Your task to perform on an android device: Open network settings Image 0: 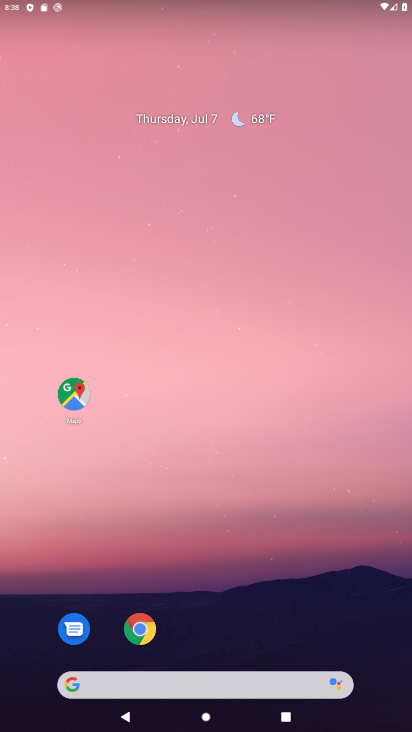
Step 0: drag from (230, 639) to (251, 86)
Your task to perform on an android device: Open network settings Image 1: 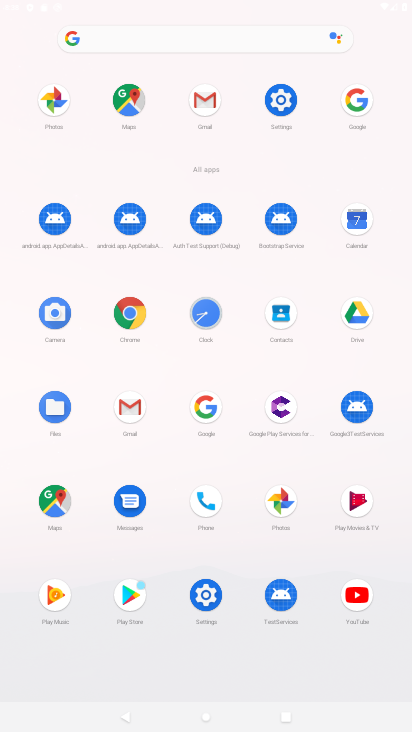
Step 1: click (280, 97)
Your task to perform on an android device: Open network settings Image 2: 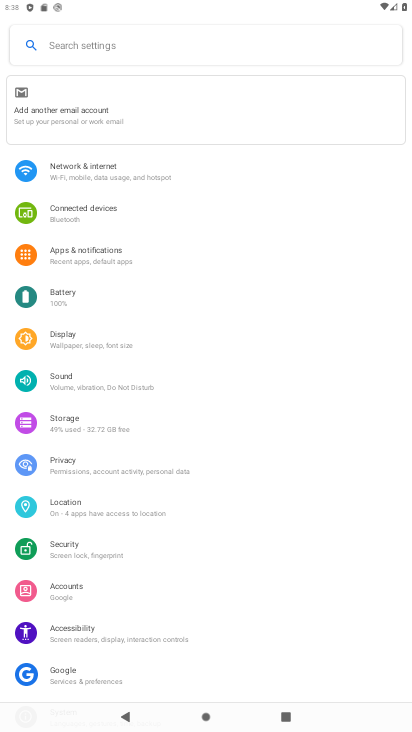
Step 2: drag from (83, 97) to (175, 4)
Your task to perform on an android device: Open network settings Image 3: 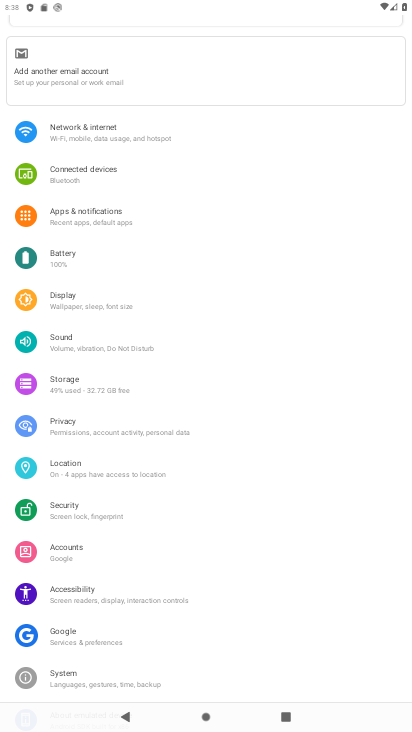
Step 3: click (119, 128)
Your task to perform on an android device: Open network settings Image 4: 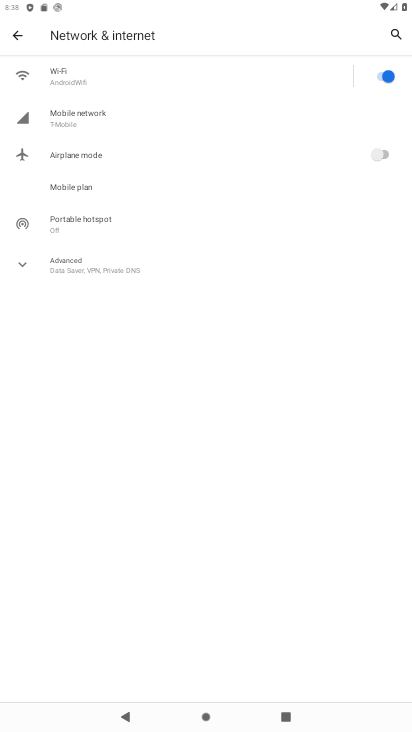
Step 4: click (112, 114)
Your task to perform on an android device: Open network settings Image 5: 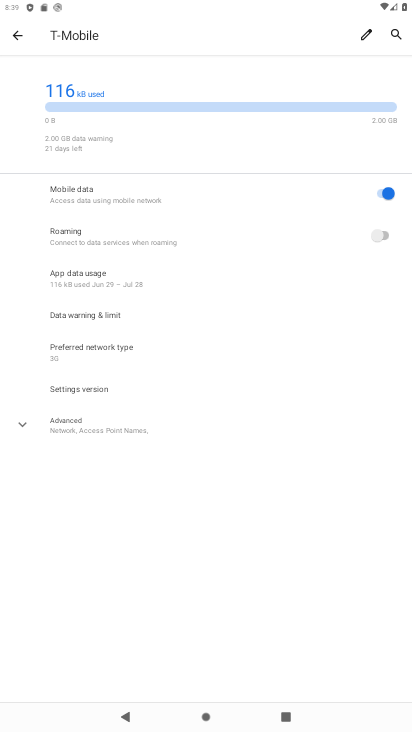
Step 5: task complete